Your task to perform on an android device: Open Wikipedia Image 0: 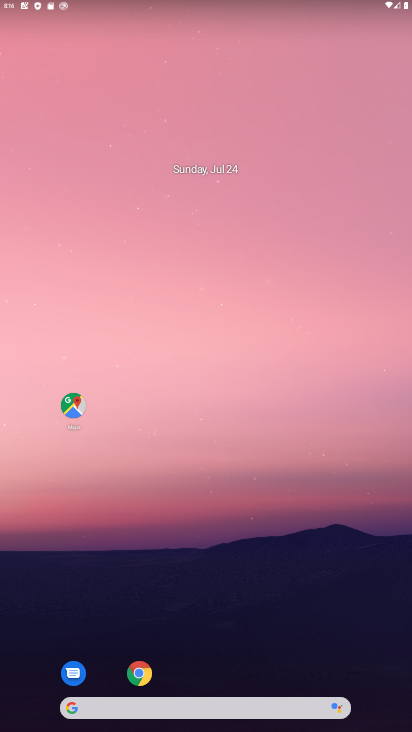
Step 0: click (131, 676)
Your task to perform on an android device: Open Wikipedia Image 1: 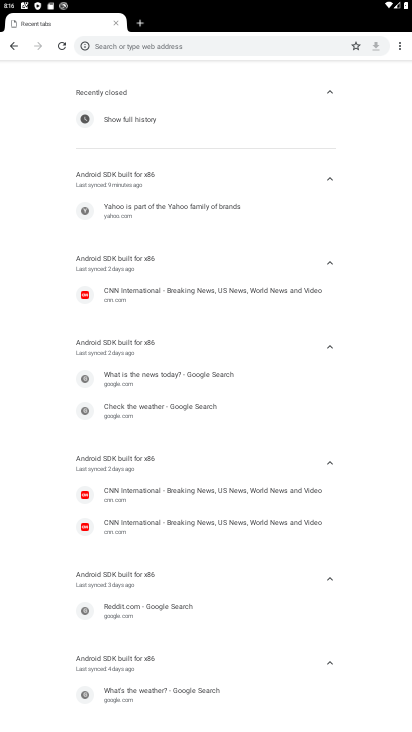
Step 1: click (10, 46)
Your task to perform on an android device: Open Wikipedia Image 2: 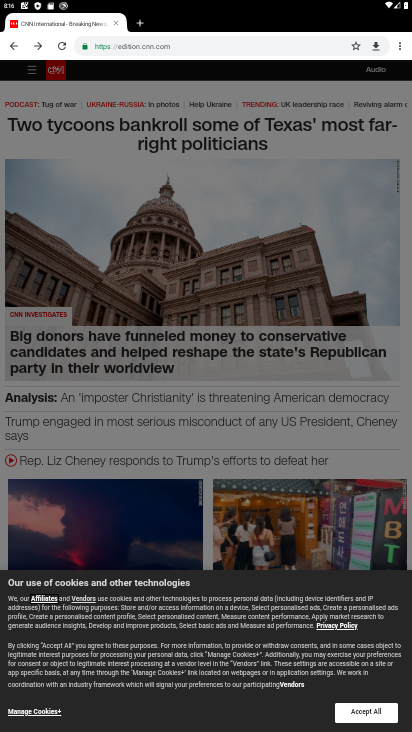
Step 2: click (13, 49)
Your task to perform on an android device: Open Wikipedia Image 3: 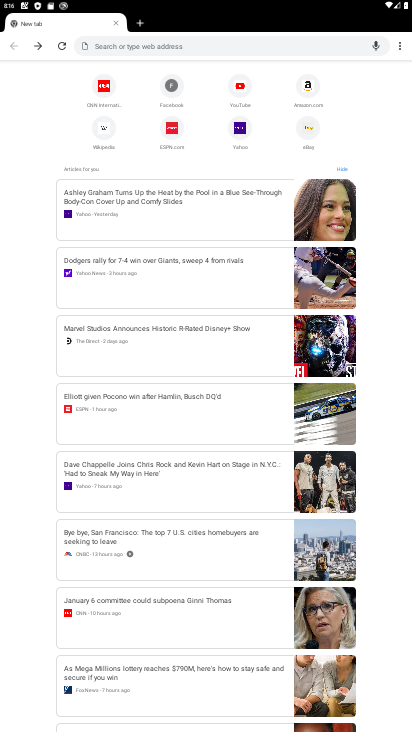
Step 3: click (99, 132)
Your task to perform on an android device: Open Wikipedia Image 4: 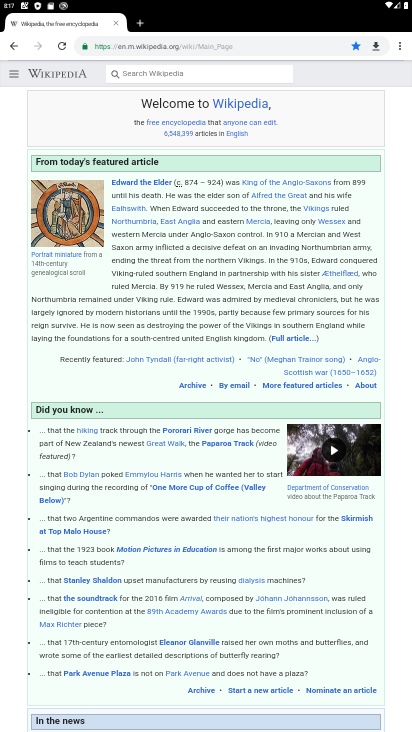
Step 4: task complete